Your task to perform on an android device: turn off javascript in the chrome app Image 0: 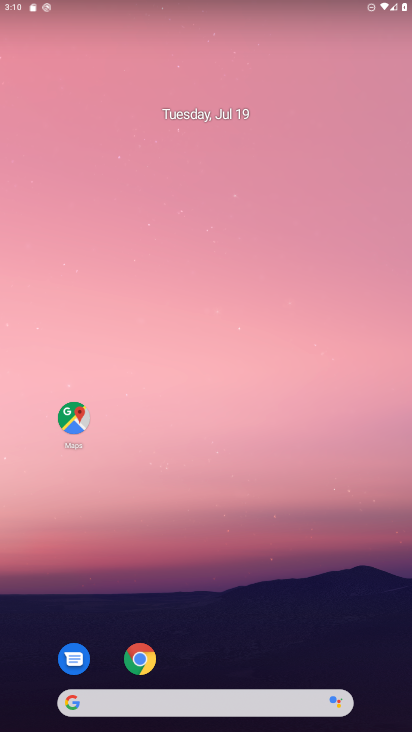
Step 0: click (126, 652)
Your task to perform on an android device: turn off javascript in the chrome app Image 1: 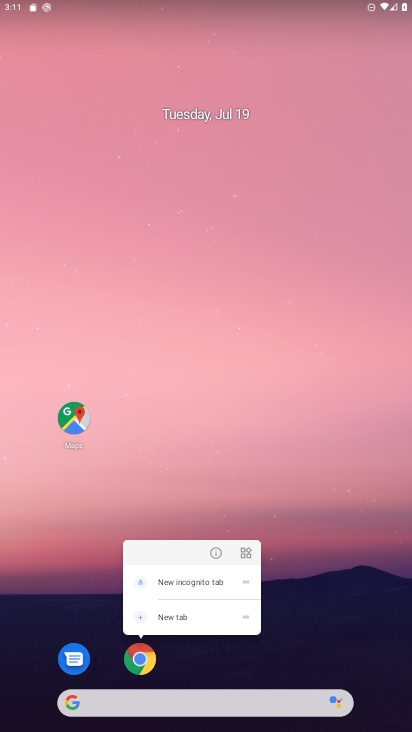
Step 1: click (139, 654)
Your task to perform on an android device: turn off javascript in the chrome app Image 2: 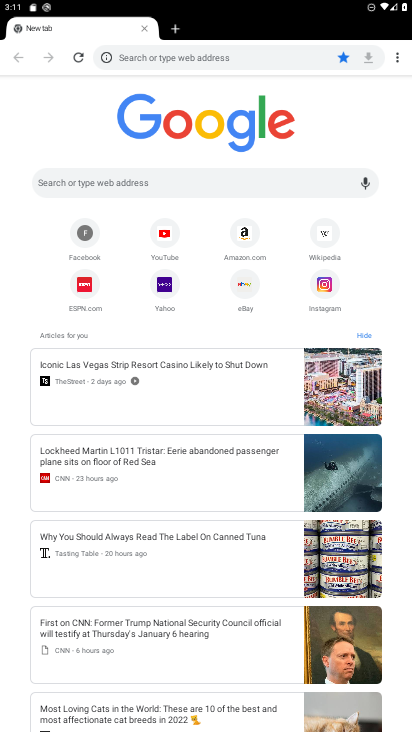
Step 2: click (398, 57)
Your task to perform on an android device: turn off javascript in the chrome app Image 3: 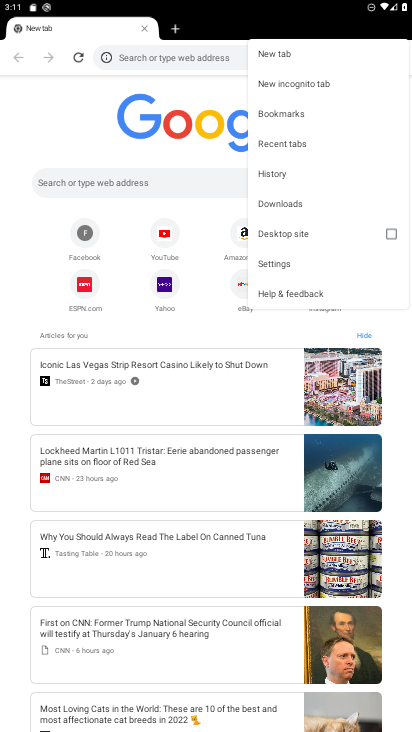
Step 3: click (293, 257)
Your task to perform on an android device: turn off javascript in the chrome app Image 4: 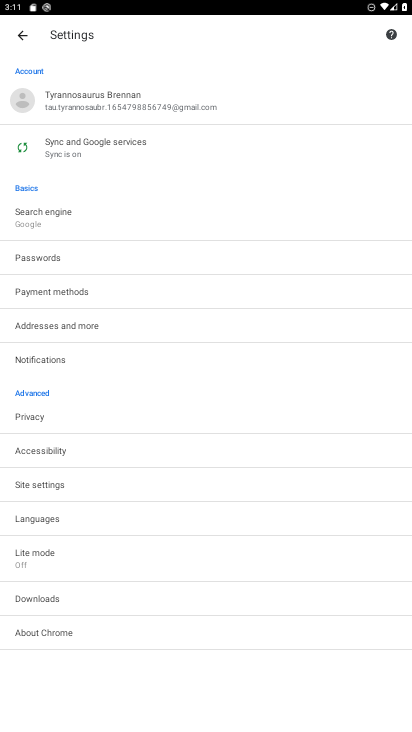
Step 4: click (57, 475)
Your task to perform on an android device: turn off javascript in the chrome app Image 5: 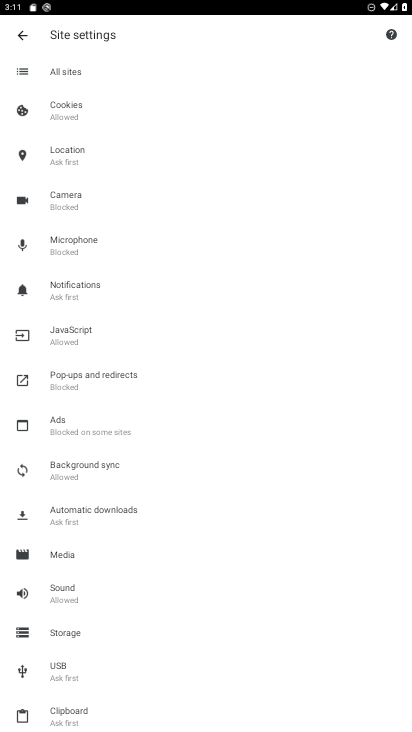
Step 5: click (77, 326)
Your task to perform on an android device: turn off javascript in the chrome app Image 6: 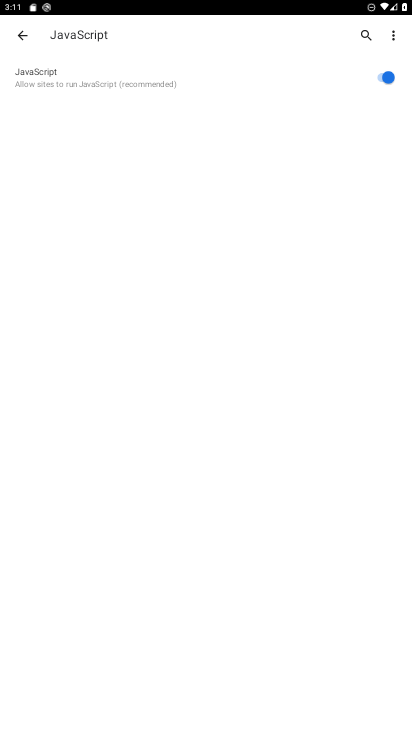
Step 6: click (385, 74)
Your task to perform on an android device: turn off javascript in the chrome app Image 7: 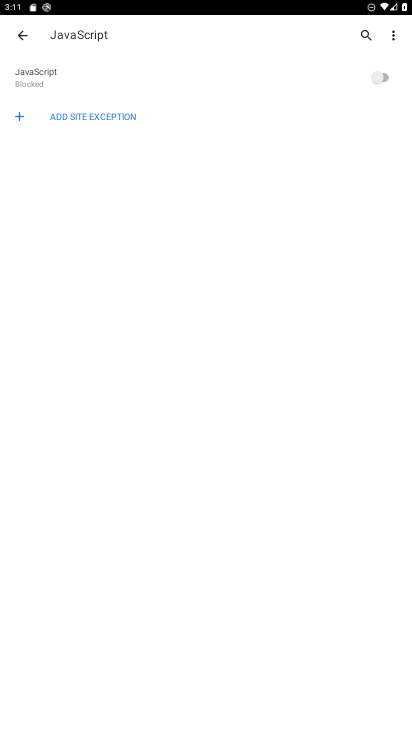
Step 7: task complete